Your task to perform on an android device: open app "Gboard" Image 0: 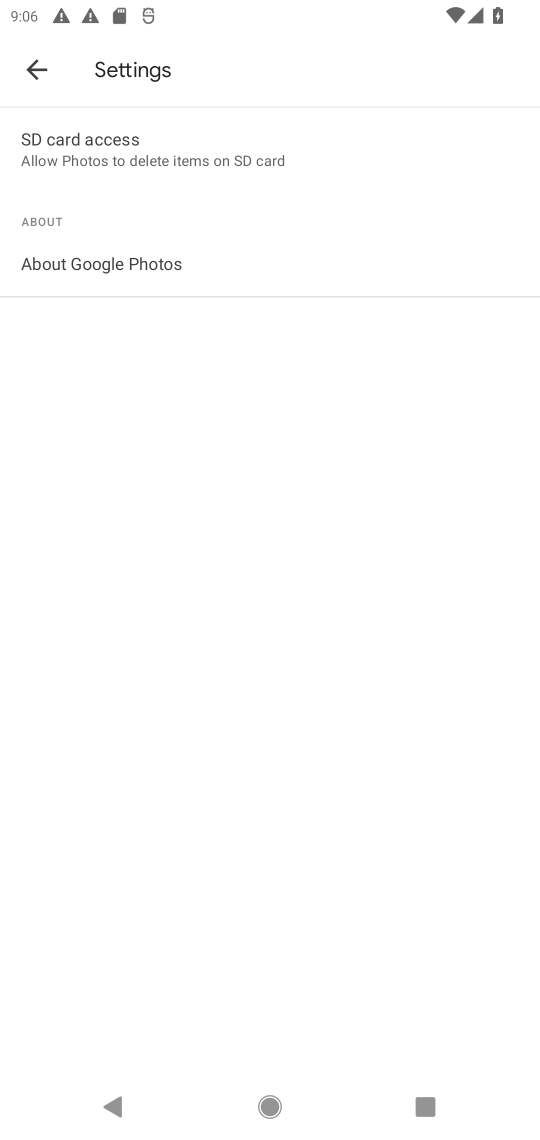
Step 0: press home button
Your task to perform on an android device: open app "Gboard" Image 1: 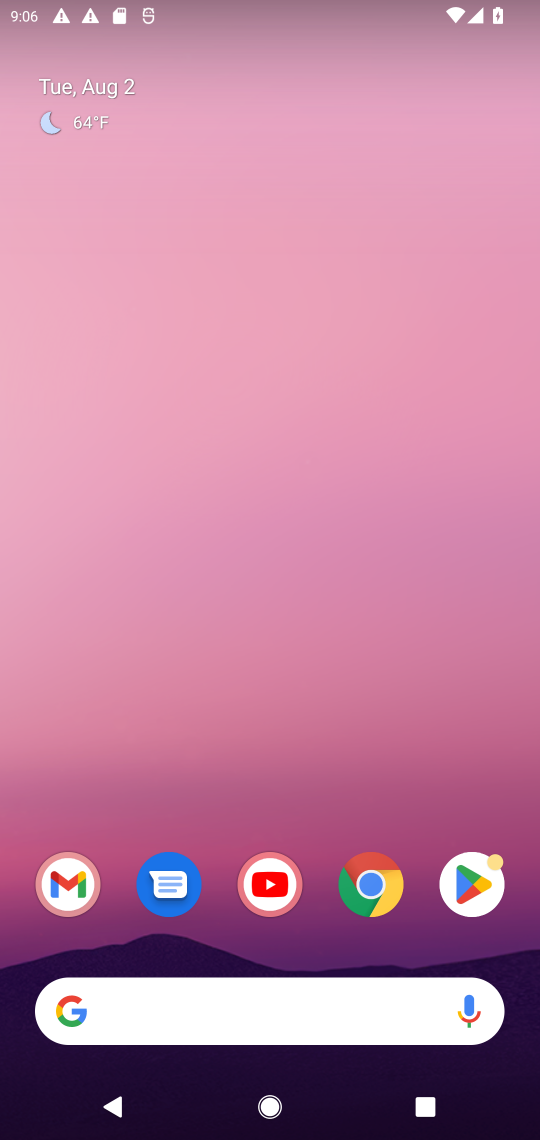
Step 1: click (470, 874)
Your task to perform on an android device: open app "Gboard" Image 2: 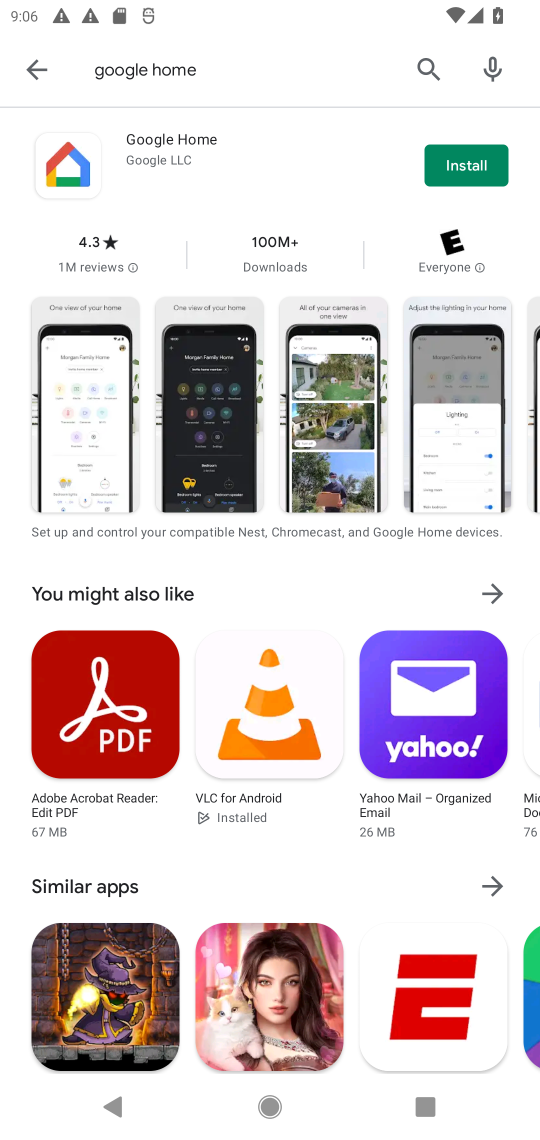
Step 2: click (423, 60)
Your task to perform on an android device: open app "Gboard" Image 3: 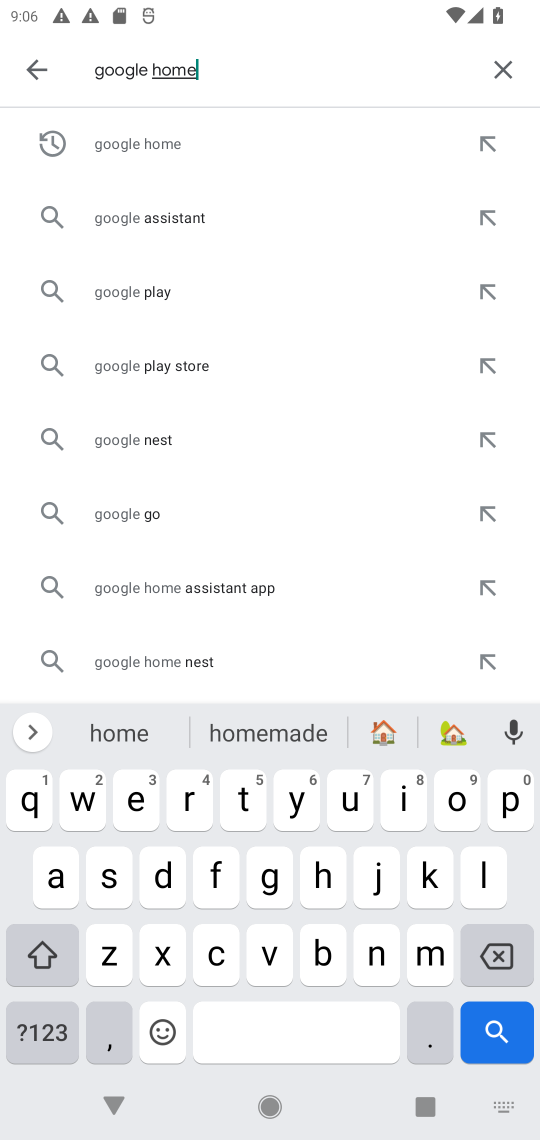
Step 3: click (498, 72)
Your task to perform on an android device: open app "Gboard" Image 4: 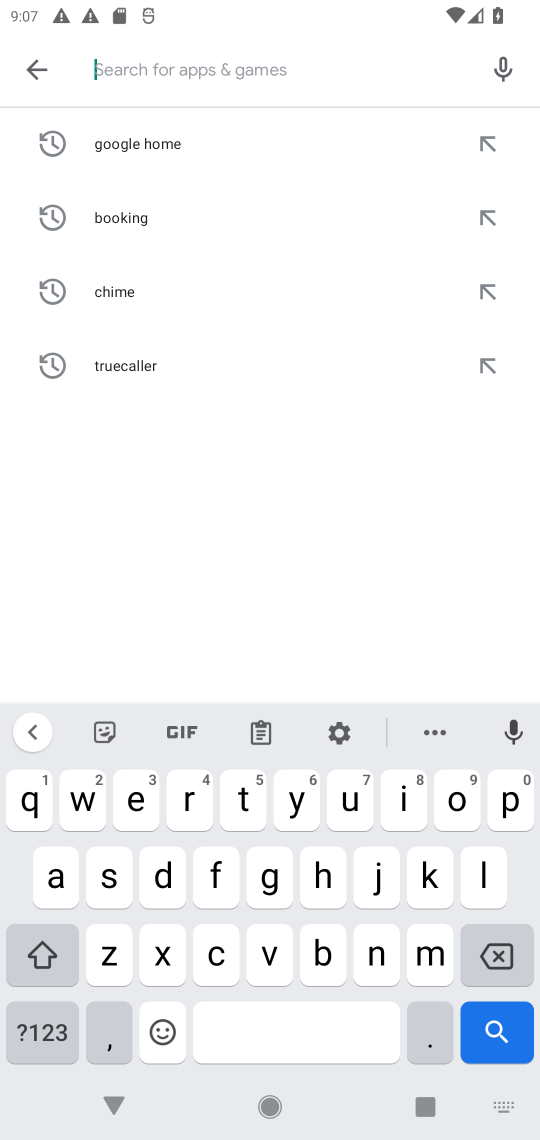
Step 4: click (271, 880)
Your task to perform on an android device: open app "Gboard" Image 5: 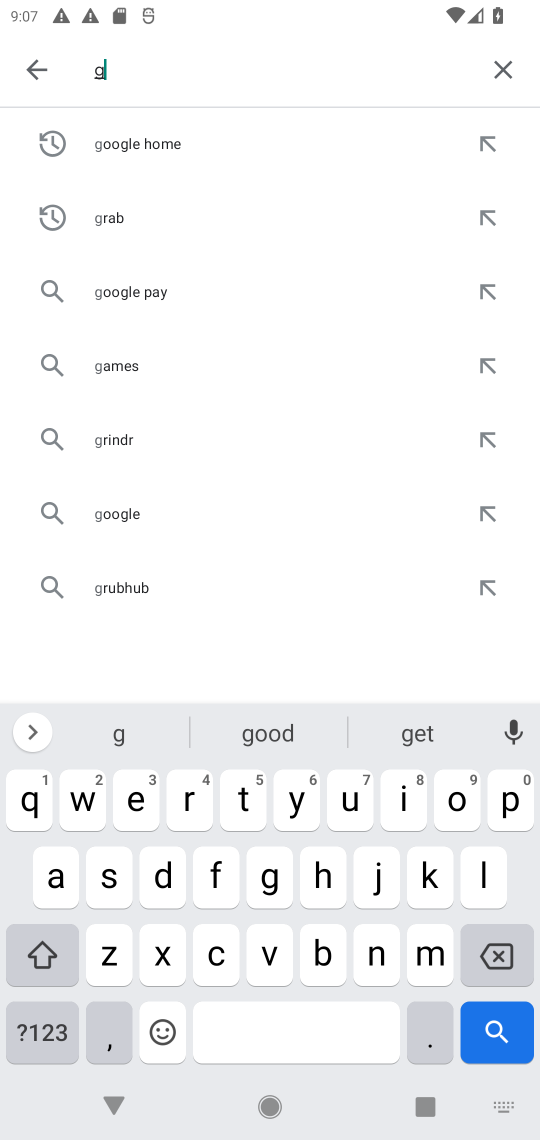
Step 5: click (323, 954)
Your task to perform on an android device: open app "Gboard" Image 6: 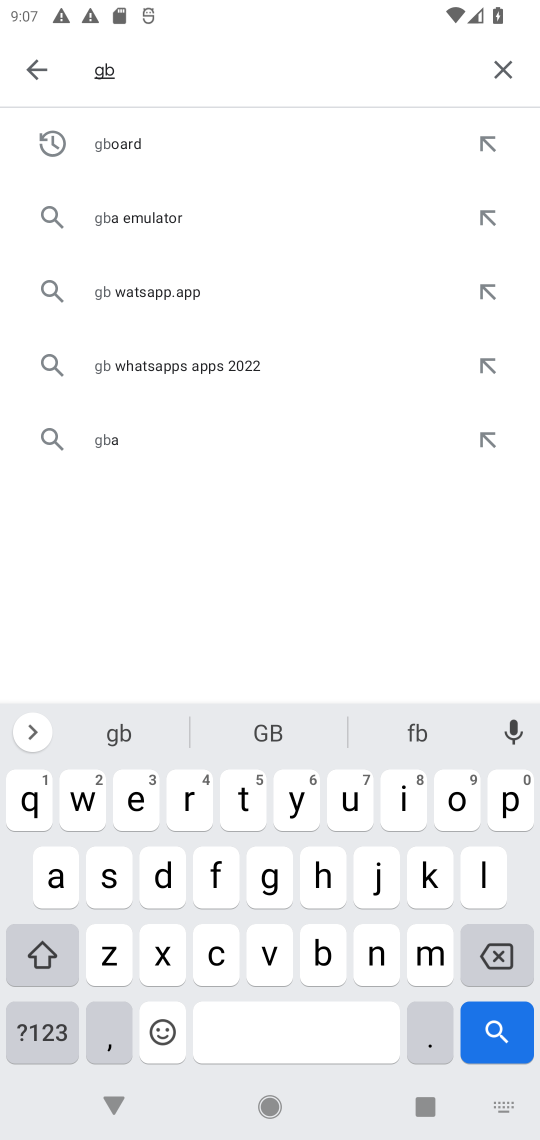
Step 6: click (457, 792)
Your task to perform on an android device: open app "Gboard" Image 7: 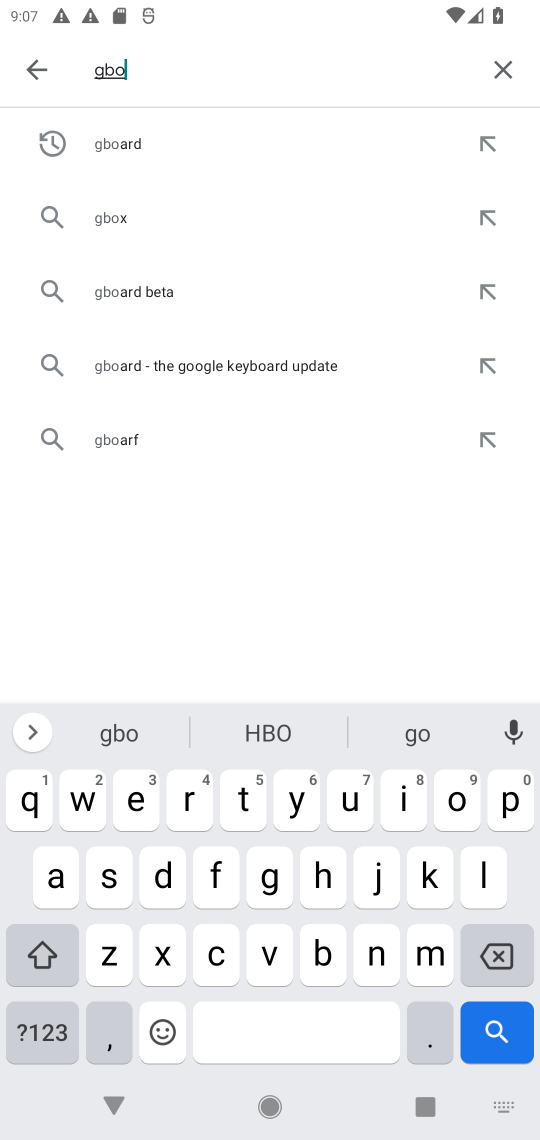
Step 7: click (185, 141)
Your task to perform on an android device: open app "Gboard" Image 8: 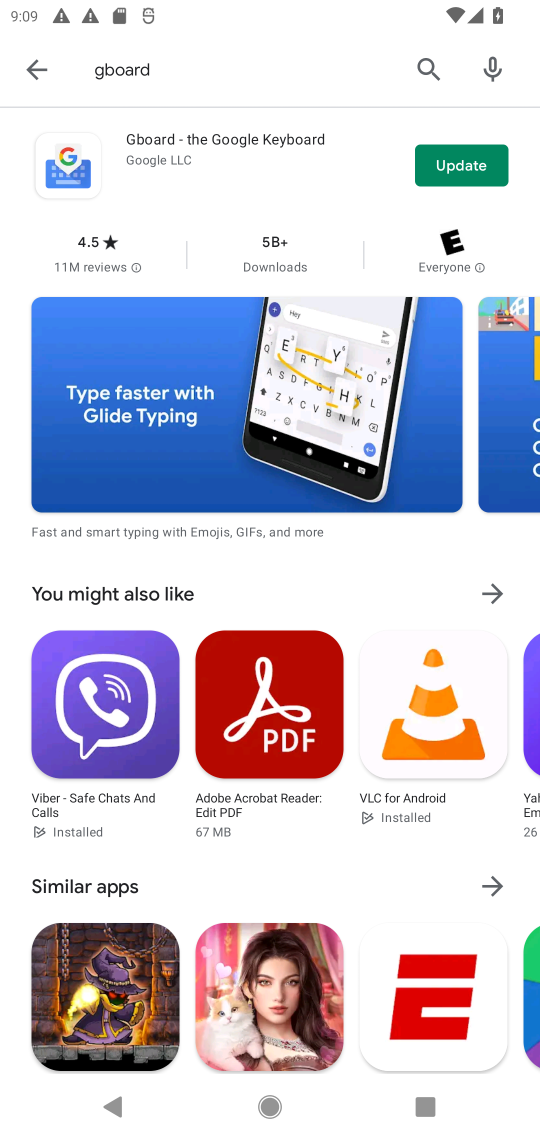
Step 8: task complete